Your task to perform on an android device: Open Youtube and go to "Your channel" Image 0: 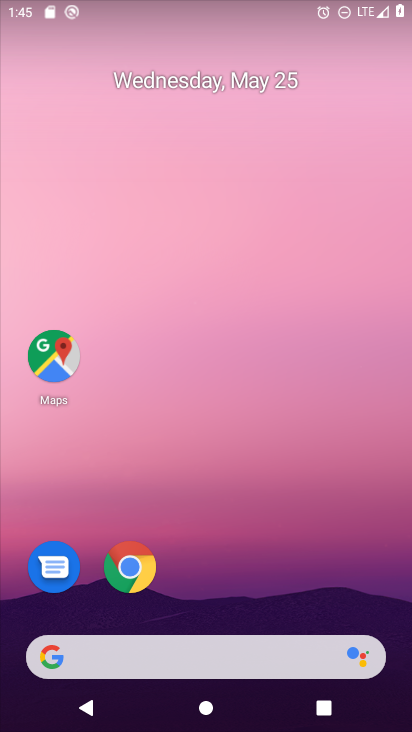
Step 0: drag from (395, 592) to (379, 320)
Your task to perform on an android device: Open Youtube and go to "Your channel" Image 1: 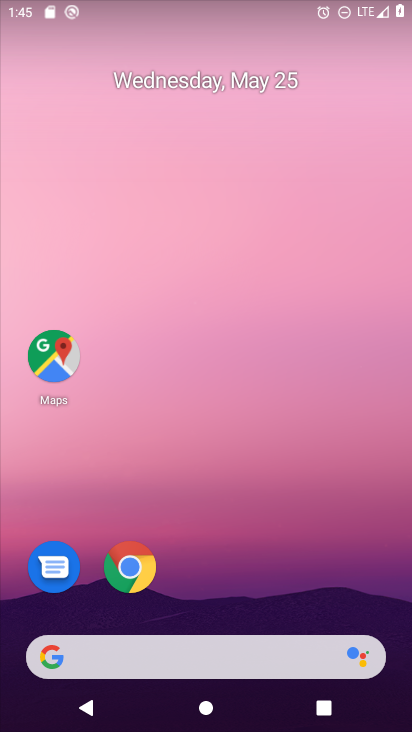
Step 1: drag from (405, 711) to (344, 166)
Your task to perform on an android device: Open Youtube and go to "Your channel" Image 2: 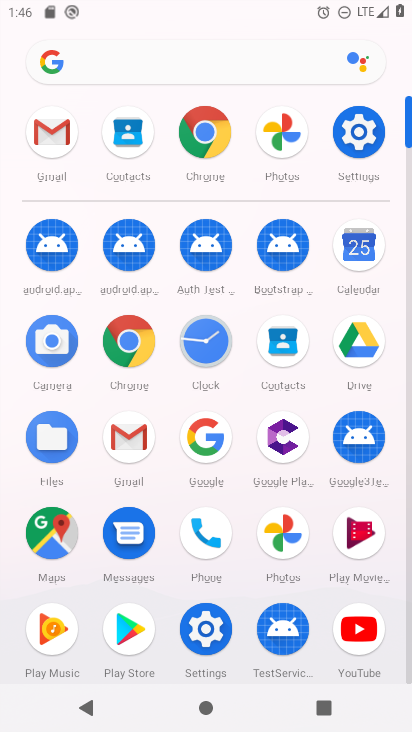
Step 2: click (359, 624)
Your task to perform on an android device: Open Youtube and go to "Your channel" Image 3: 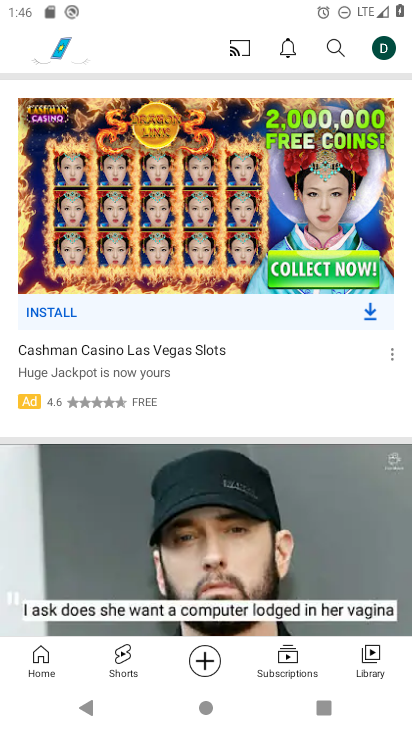
Step 3: click (381, 46)
Your task to perform on an android device: Open Youtube and go to "Your channel" Image 4: 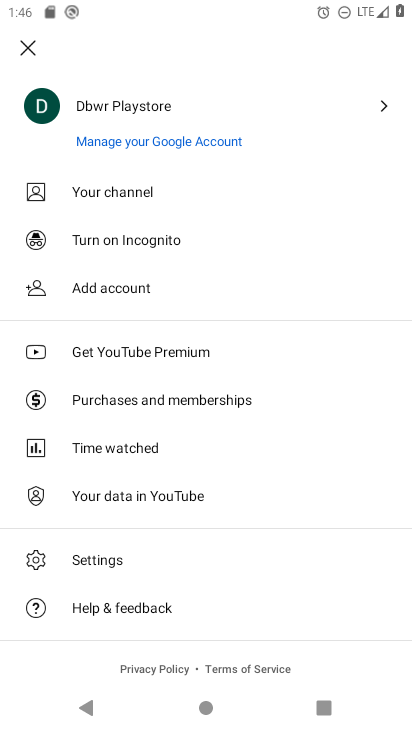
Step 4: click (120, 192)
Your task to perform on an android device: Open Youtube and go to "Your channel" Image 5: 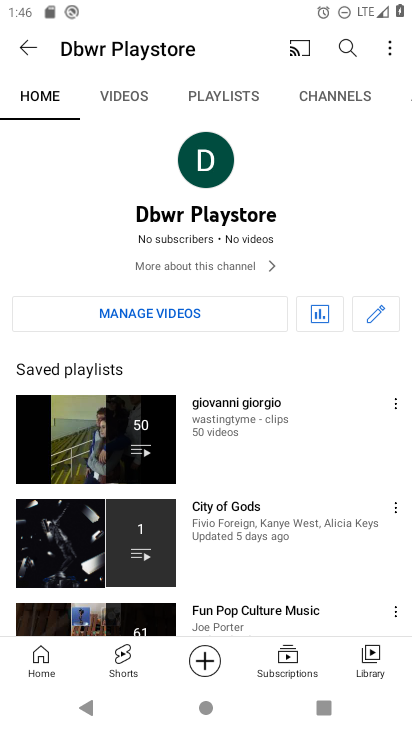
Step 5: task complete